Your task to perform on an android device: delete the emails in spam in the gmail app Image 0: 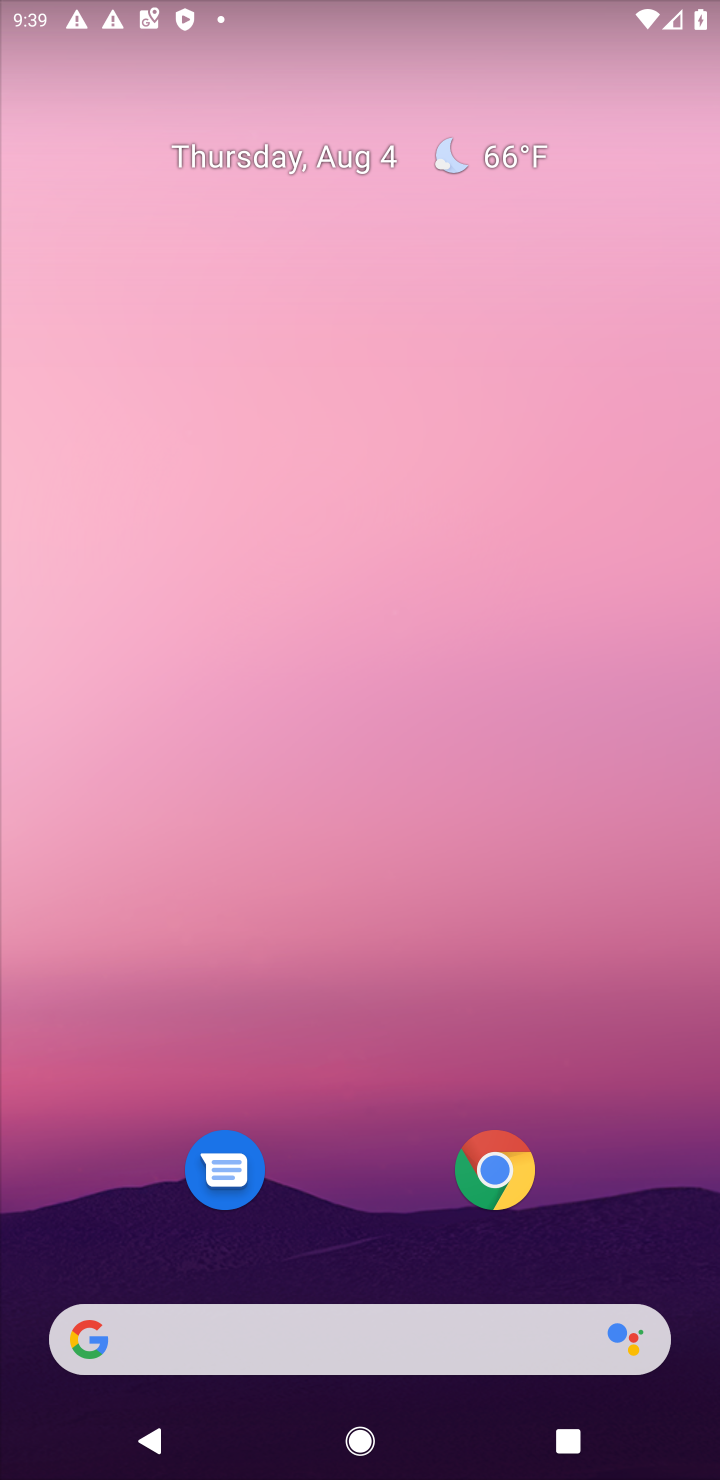
Step 0: drag from (359, 816) to (300, 24)
Your task to perform on an android device: delete the emails in spam in the gmail app Image 1: 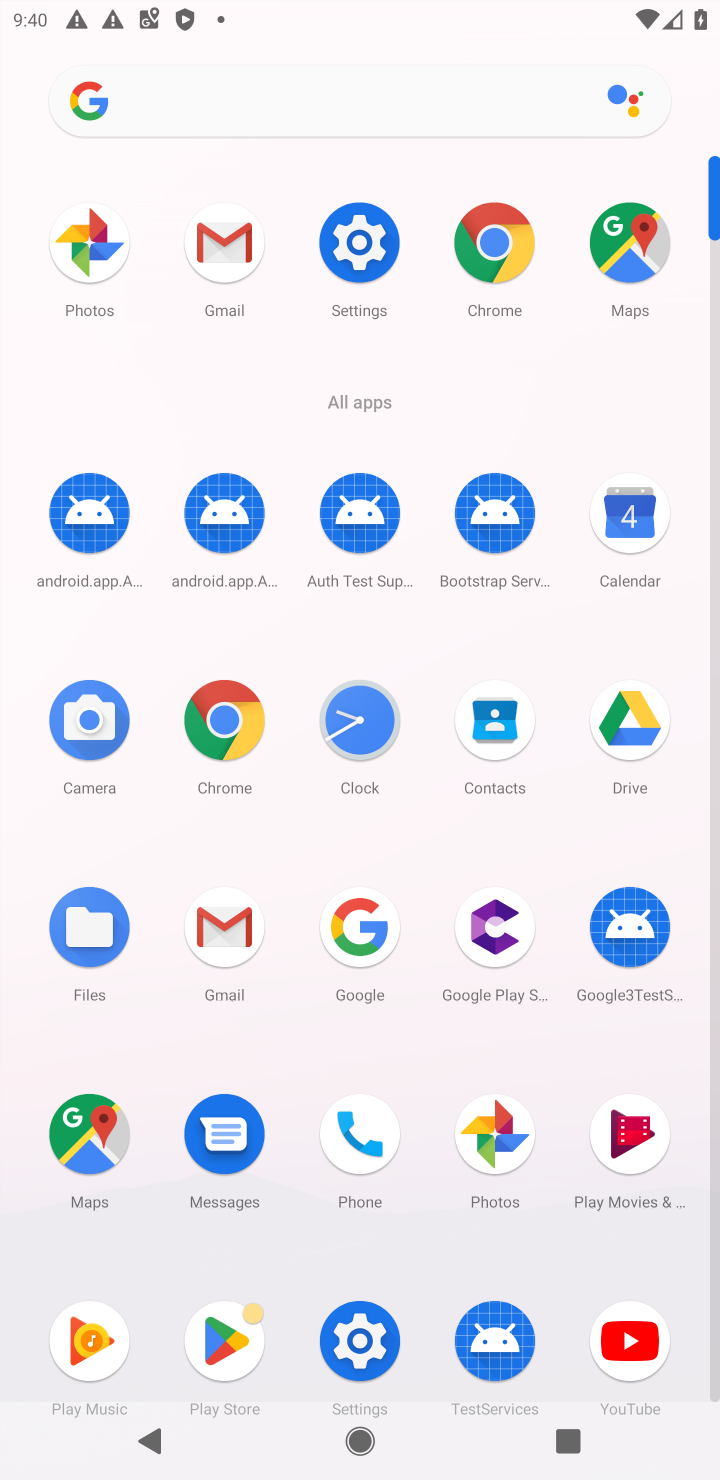
Step 1: click (205, 917)
Your task to perform on an android device: delete the emails in spam in the gmail app Image 2: 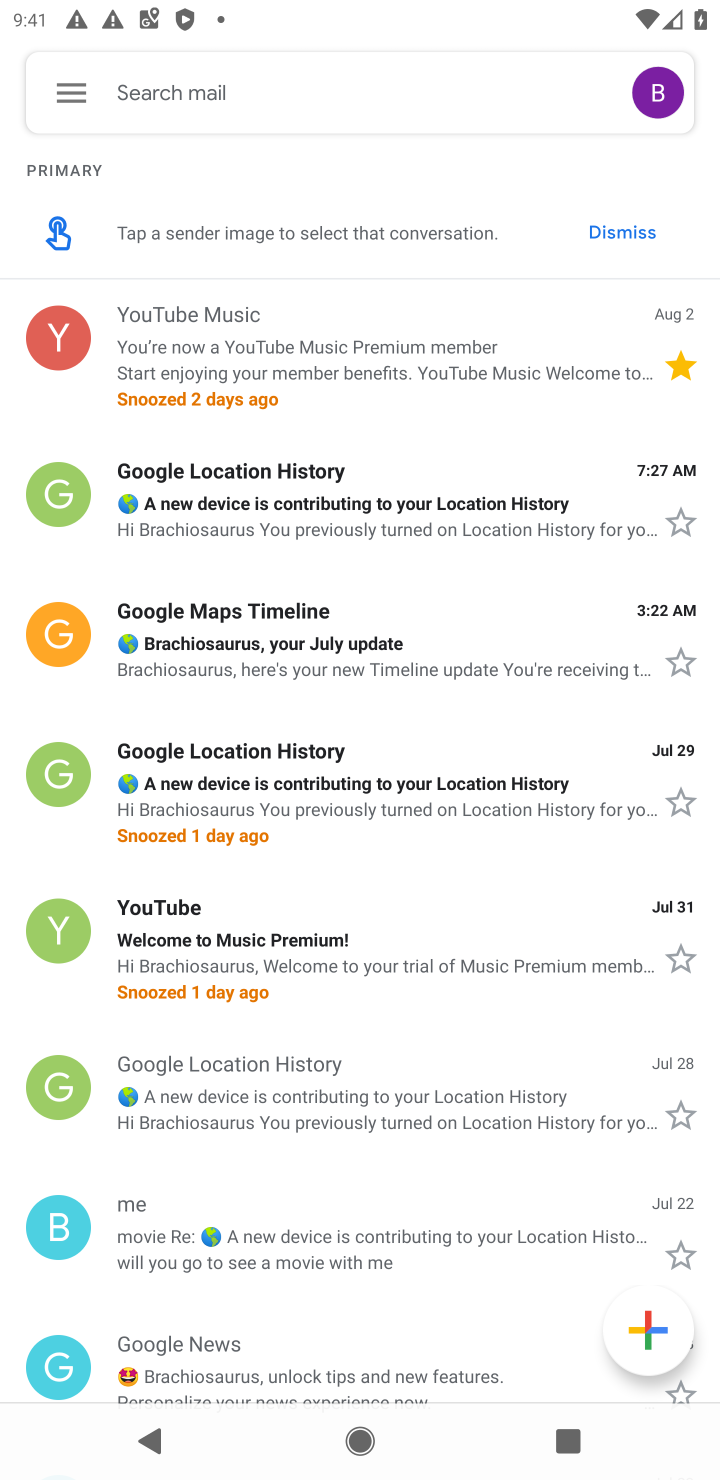
Step 2: click (287, 387)
Your task to perform on an android device: delete the emails in spam in the gmail app Image 3: 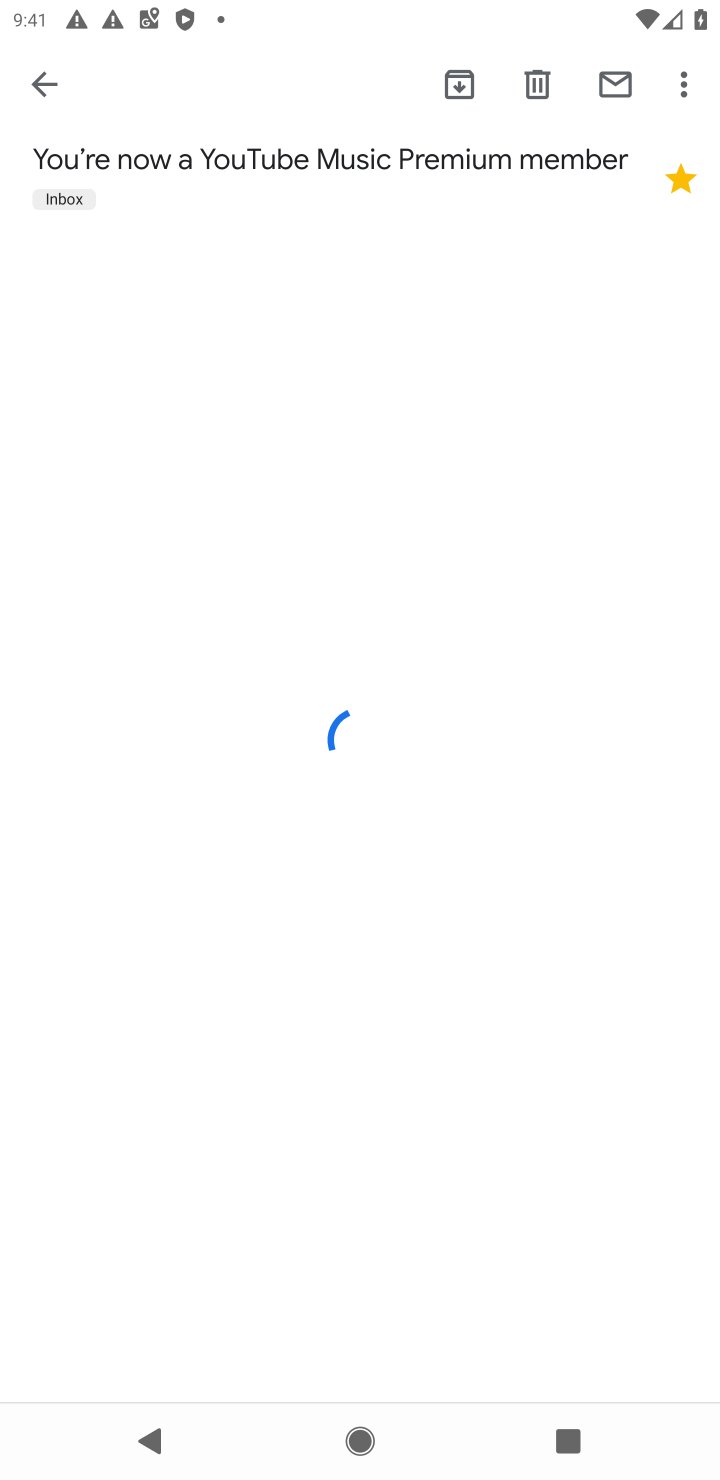
Step 3: click (547, 94)
Your task to perform on an android device: delete the emails in spam in the gmail app Image 4: 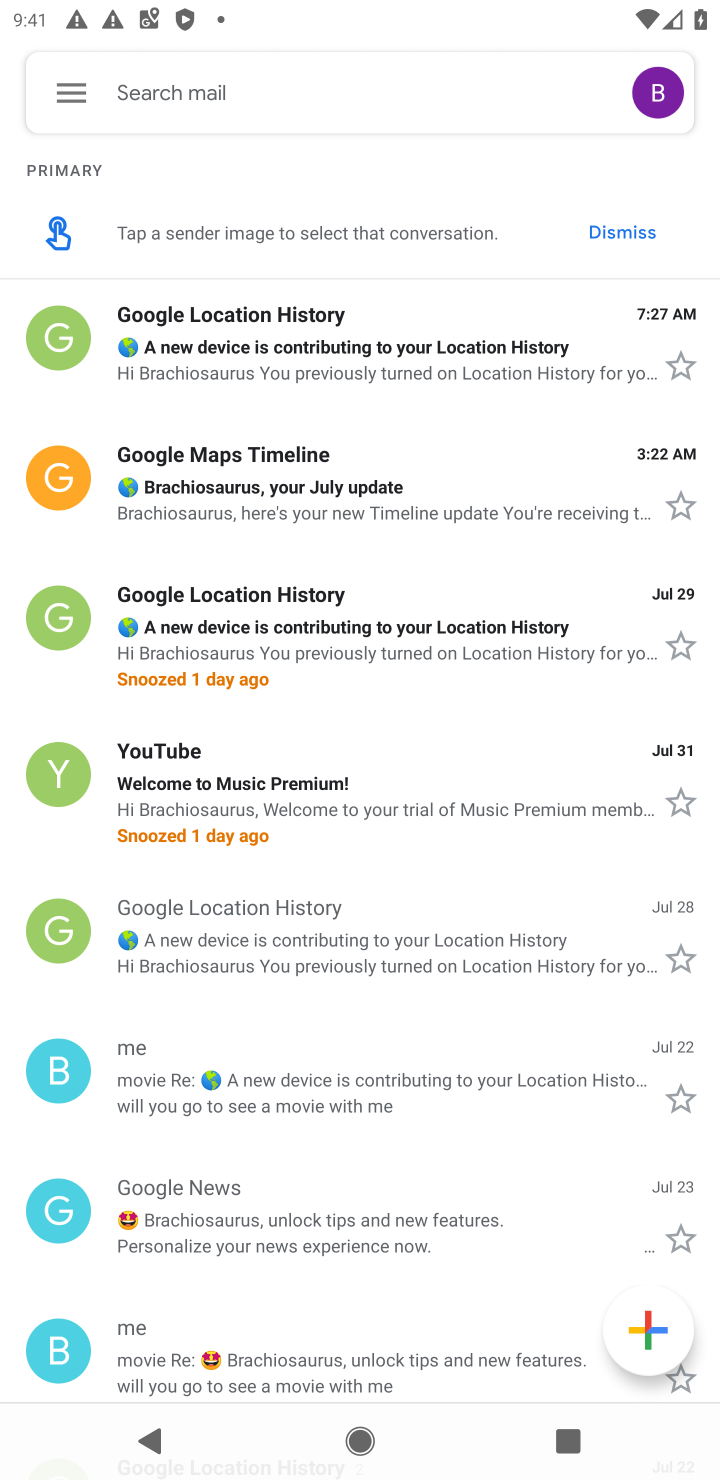
Step 4: task complete